Your task to perform on an android device: set the timer Image 0: 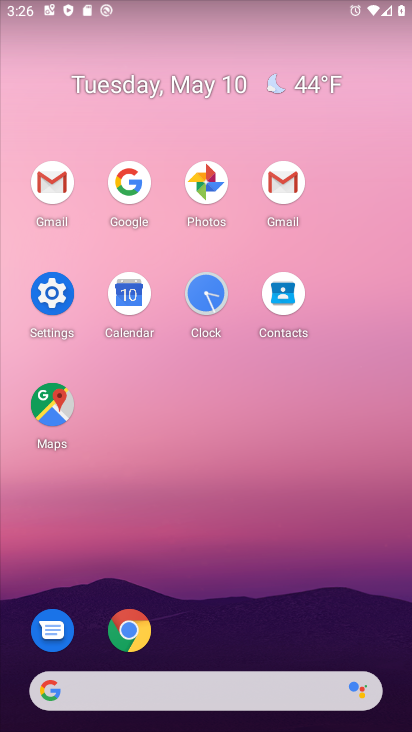
Step 0: click (207, 288)
Your task to perform on an android device: set the timer Image 1: 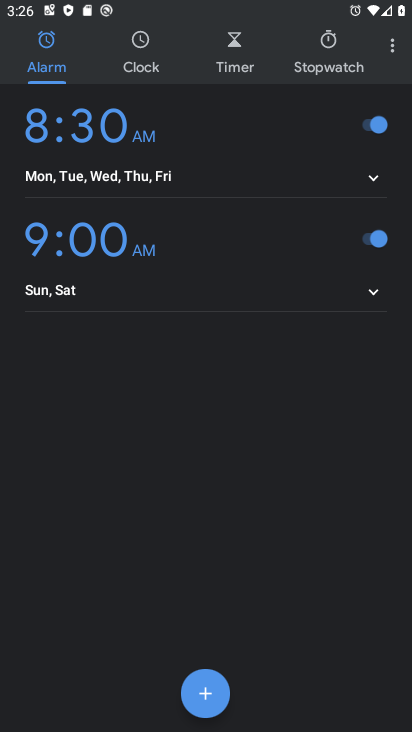
Step 1: click (255, 44)
Your task to perform on an android device: set the timer Image 2: 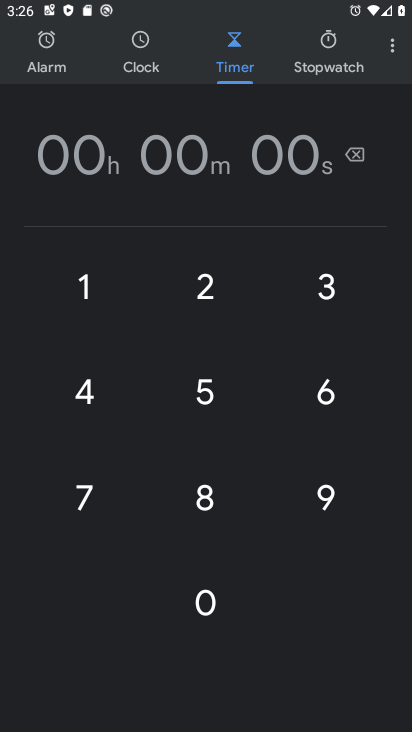
Step 2: click (117, 300)
Your task to perform on an android device: set the timer Image 3: 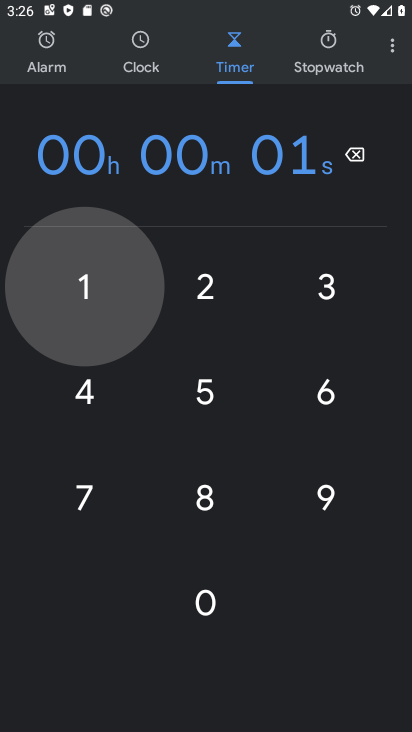
Step 3: click (117, 300)
Your task to perform on an android device: set the timer Image 4: 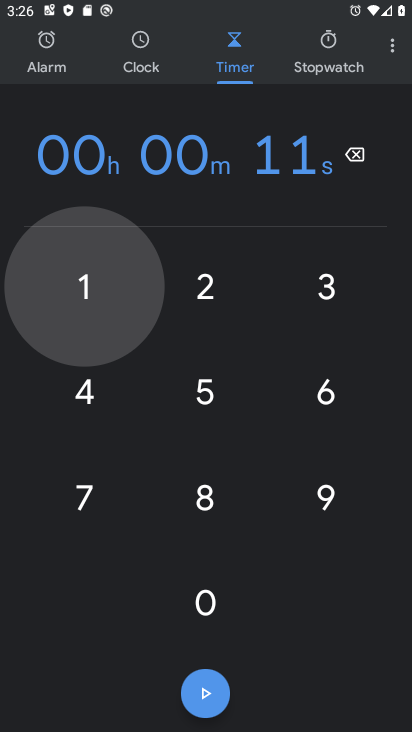
Step 4: click (117, 300)
Your task to perform on an android device: set the timer Image 5: 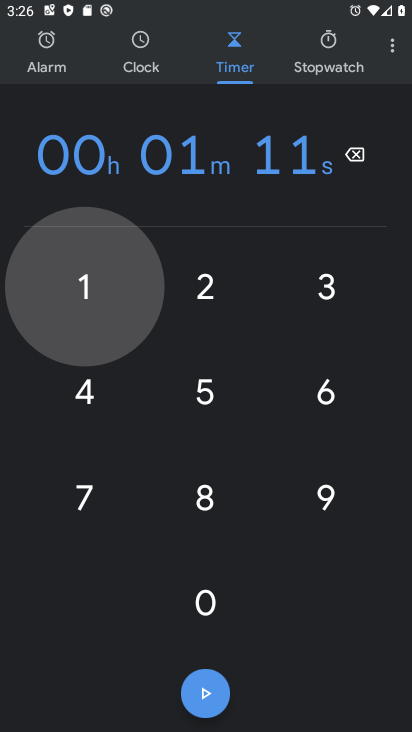
Step 5: click (117, 300)
Your task to perform on an android device: set the timer Image 6: 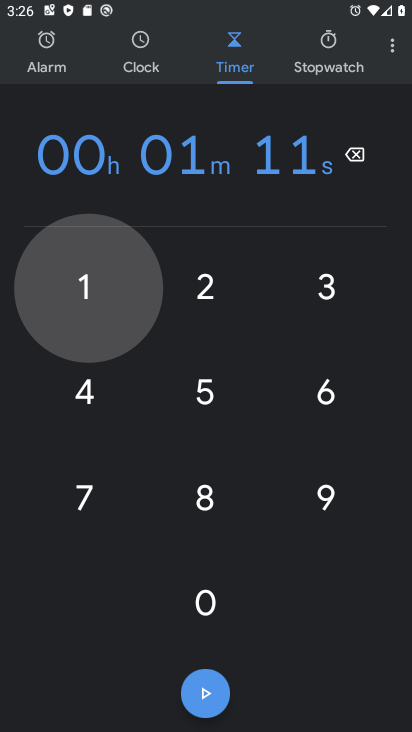
Step 6: click (117, 300)
Your task to perform on an android device: set the timer Image 7: 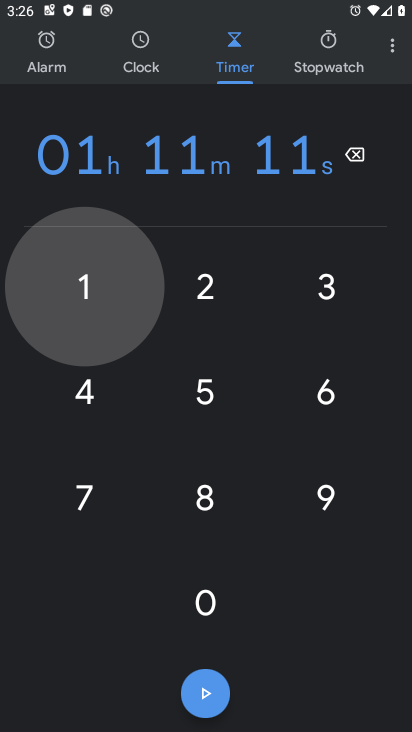
Step 7: click (117, 300)
Your task to perform on an android device: set the timer Image 8: 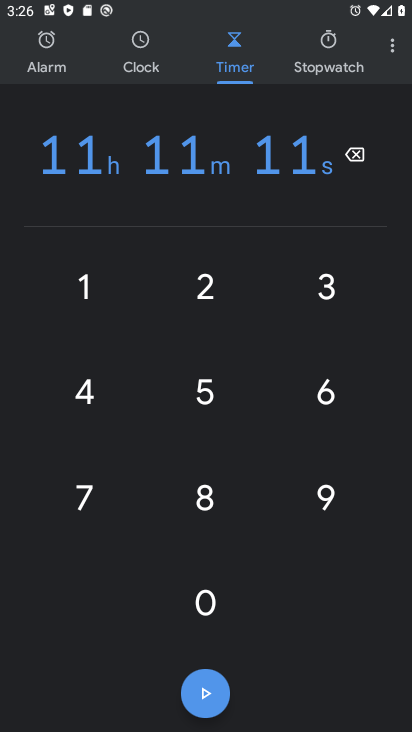
Step 8: click (224, 710)
Your task to perform on an android device: set the timer Image 9: 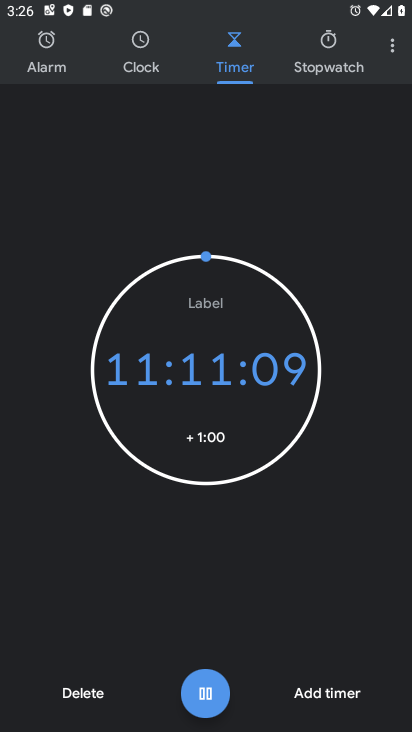
Step 9: task complete